Your task to perform on an android device: Go to Reddit.com Image 0: 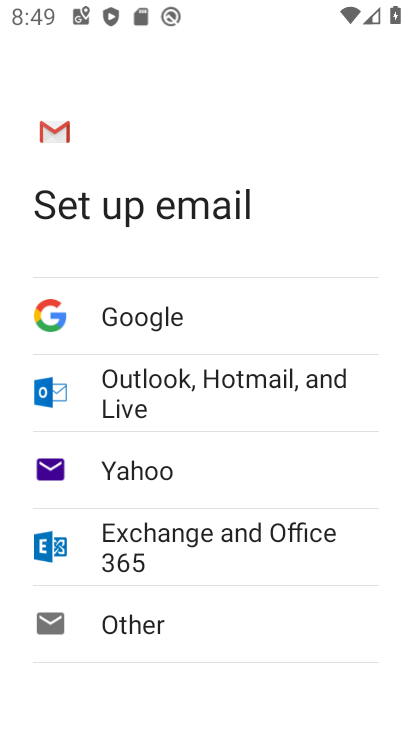
Step 0: press home button
Your task to perform on an android device: Go to Reddit.com Image 1: 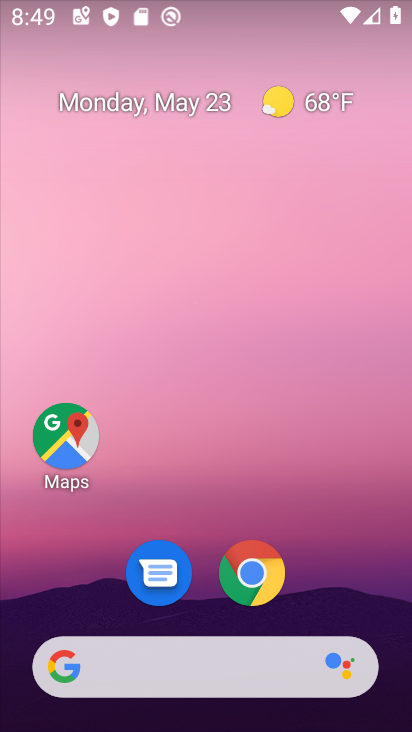
Step 1: click (272, 557)
Your task to perform on an android device: Go to Reddit.com Image 2: 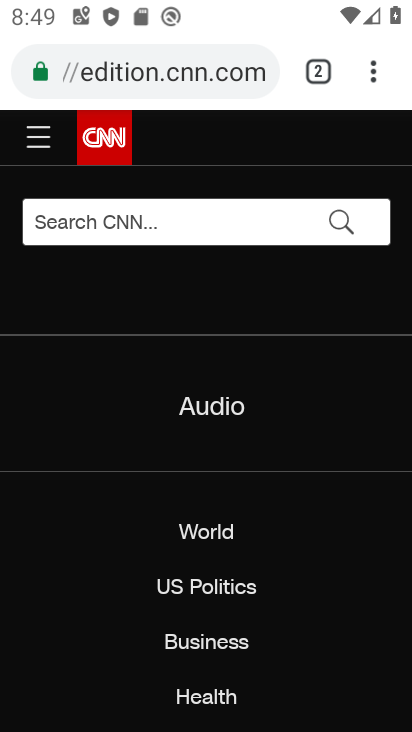
Step 2: click (248, 72)
Your task to perform on an android device: Go to Reddit.com Image 3: 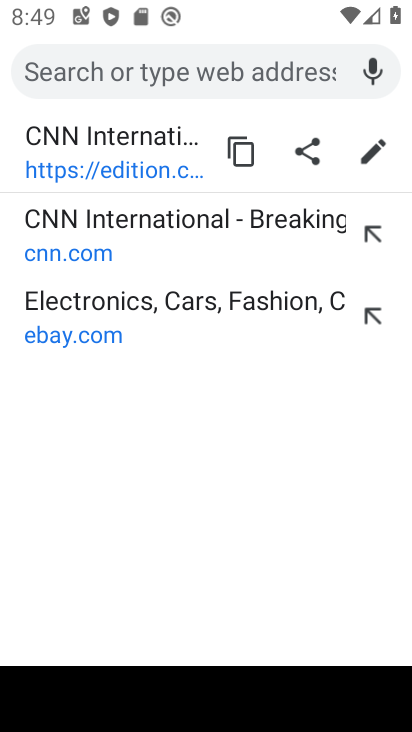
Step 3: type "reddit"
Your task to perform on an android device: Go to Reddit.com Image 4: 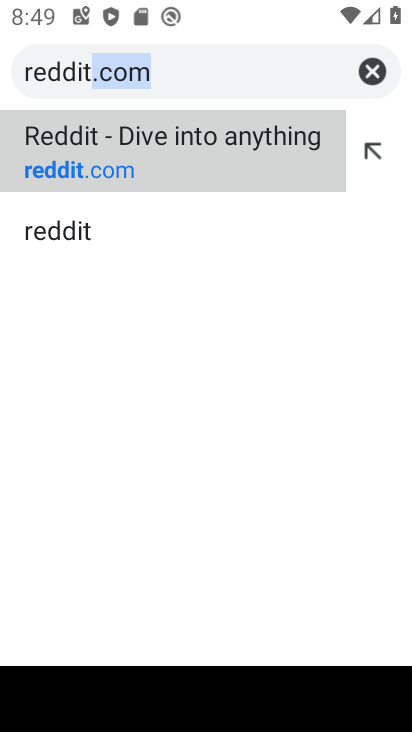
Step 4: click (256, 169)
Your task to perform on an android device: Go to Reddit.com Image 5: 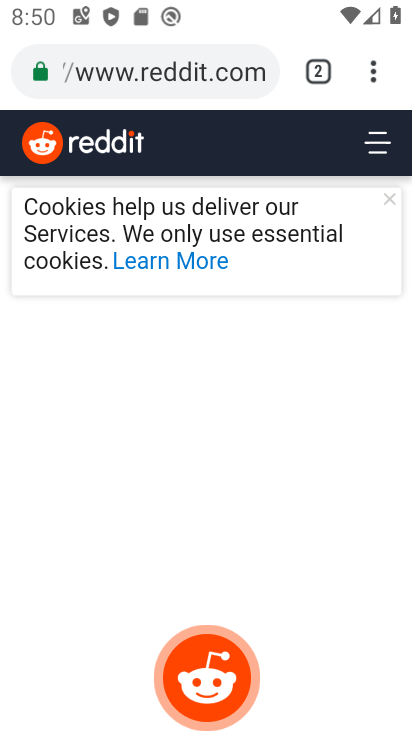
Step 5: task complete